Your task to perform on an android device: Go to Maps Image 0: 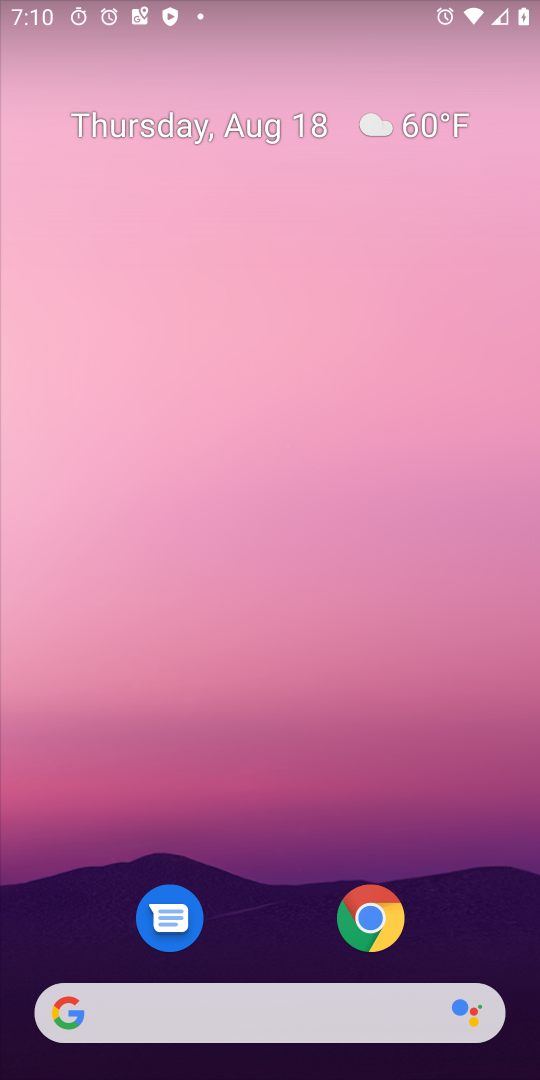
Step 0: press home button
Your task to perform on an android device: Go to Maps Image 1: 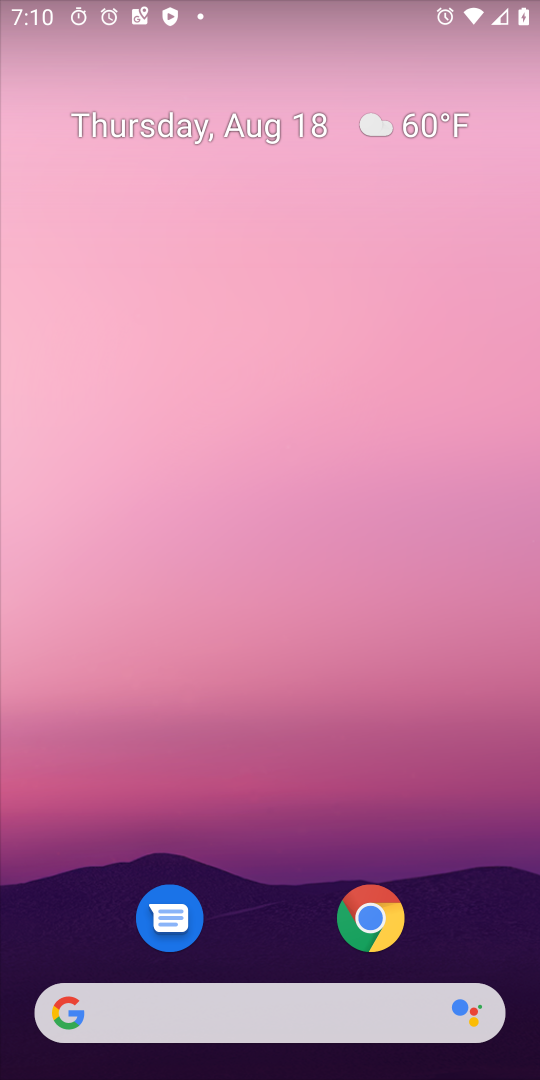
Step 1: drag from (278, 951) to (430, 1)
Your task to perform on an android device: Go to Maps Image 2: 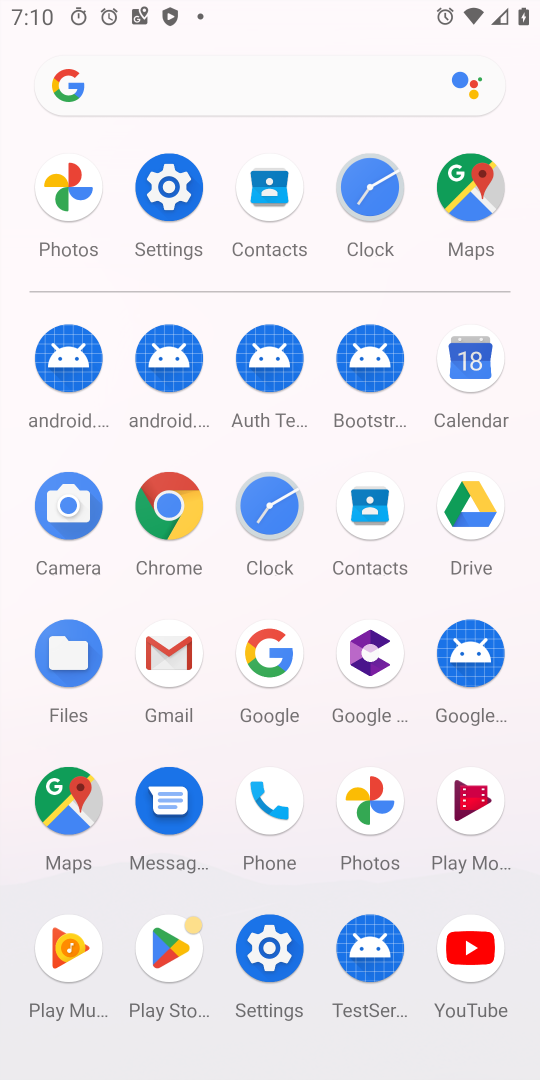
Step 2: click (466, 190)
Your task to perform on an android device: Go to Maps Image 3: 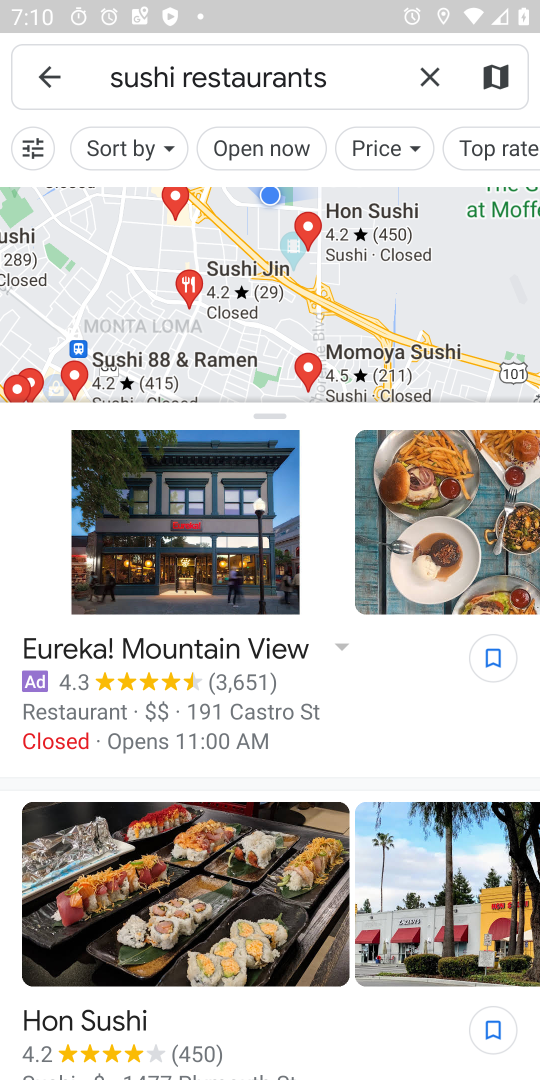
Step 3: task complete